Your task to perform on an android device: Open Android settings Image 0: 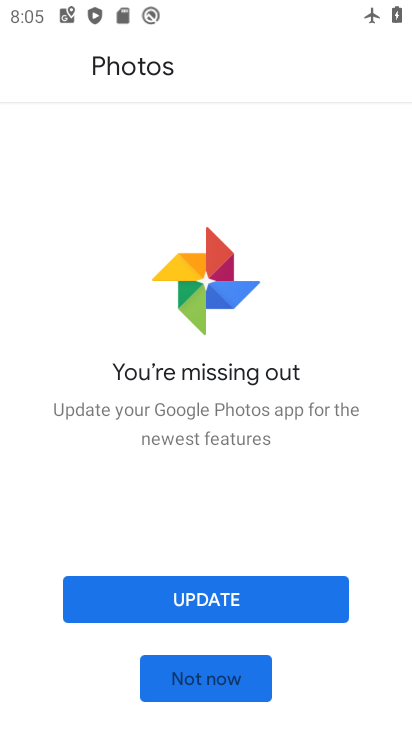
Step 0: press home button
Your task to perform on an android device: Open Android settings Image 1: 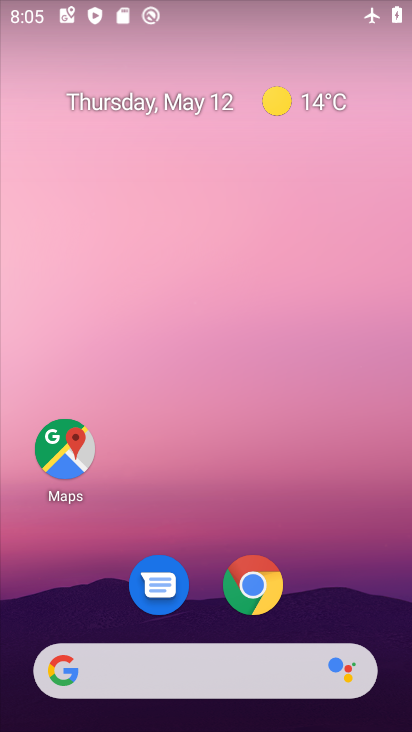
Step 1: drag from (326, 530) to (306, 36)
Your task to perform on an android device: Open Android settings Image 2: 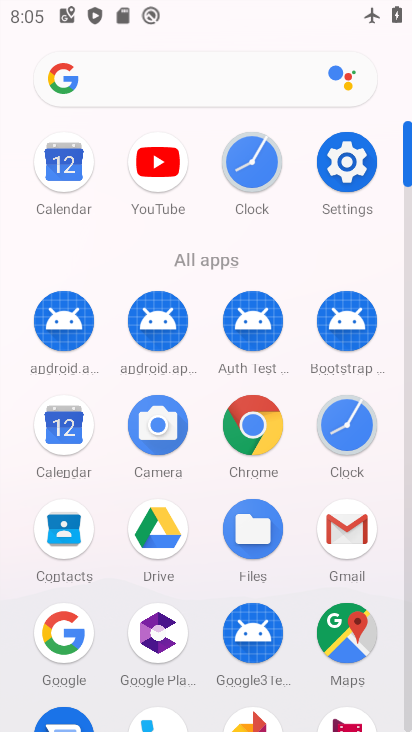
Step 2: click (331, 160)
Your task to perform on an android device: Open Android settings Image 3: 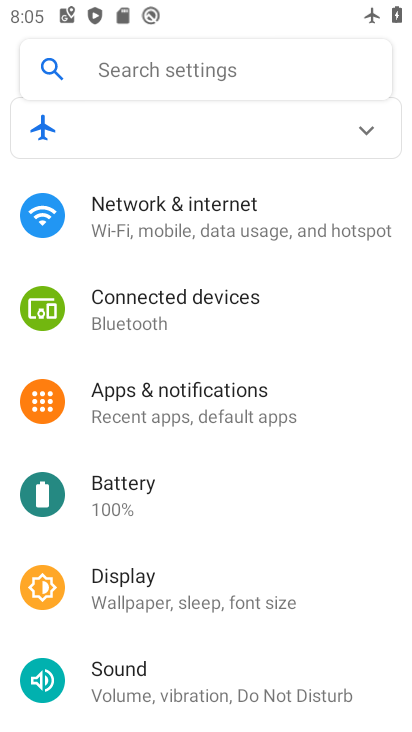
Step 3: drag from (263, 492) to (326, 91)
Your task to perform on an android device: Open Android settings Image 4: 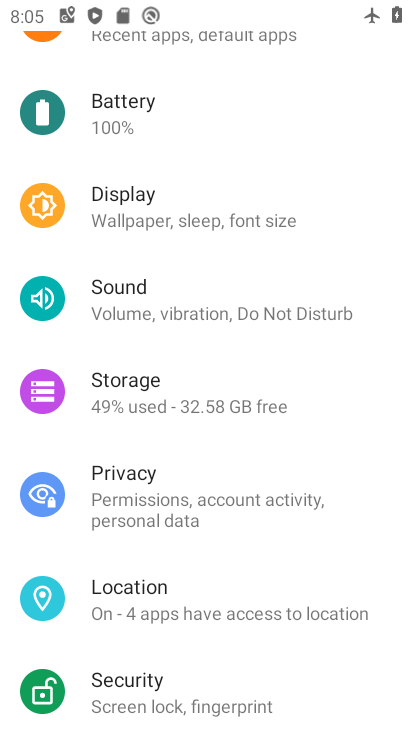
Step 4: drag from (234, 527) to (234, 105)
Your task to perform on an android device: Open Android settings Image 5: 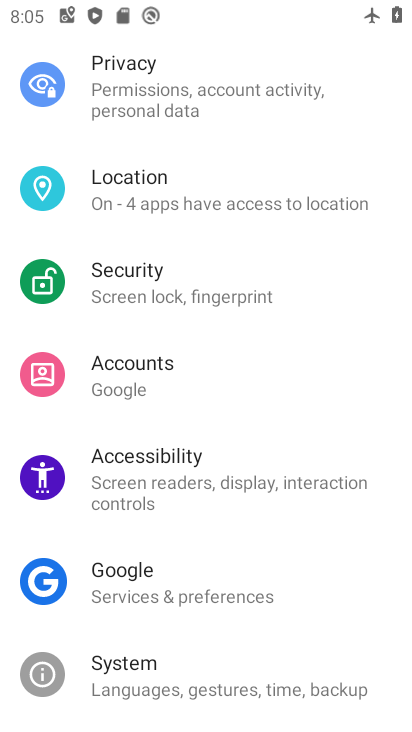
Step 5: drag from (250, 509) to (259, 292)
Your task to perform on an android device: Open Android settings Image 6: 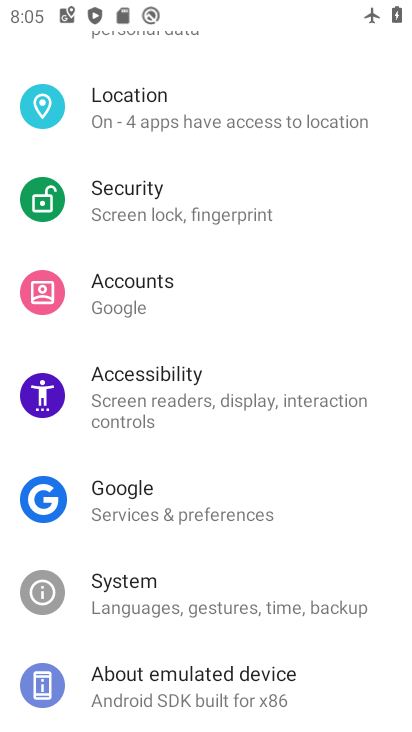
Step 6: click (226, 681)
Your task to perform on an android device: Open Android settings Image 7: 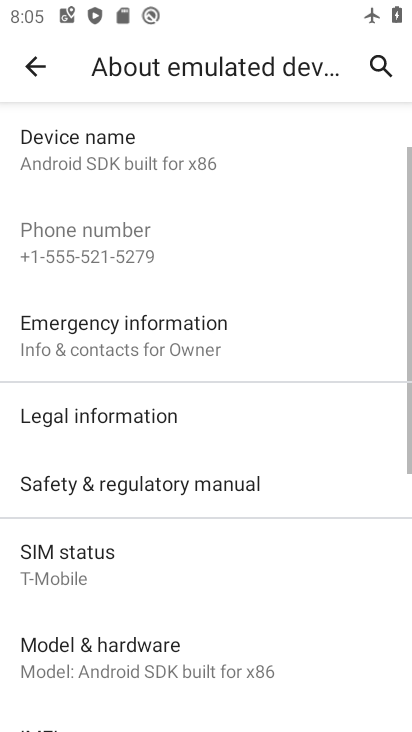
Step 7: task complete